Your task to perform on an android device: Show me productivity apps on the Play Store Image 0: 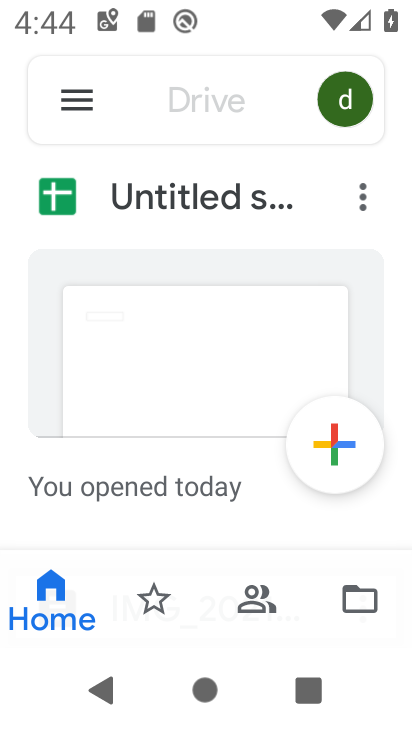
Step 0: press home button
Your task to perform on an android device: Show me productivity apps on the Play Store Image 1: 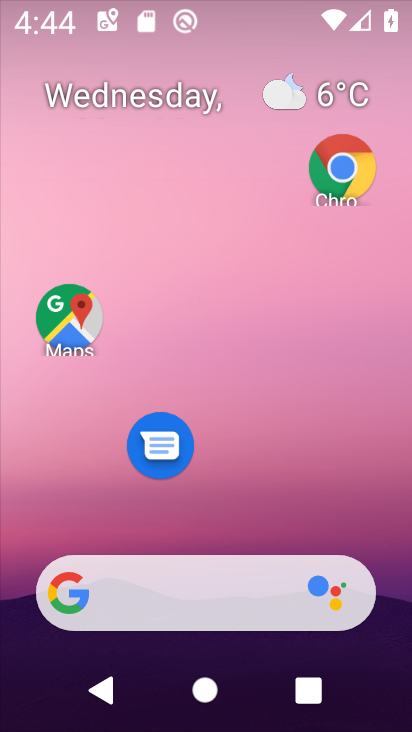
Step 1: drag from (172, 536) to (210, 6)
Your task to perform on an android device: Show me productivity apps on the Play Store Image 2: 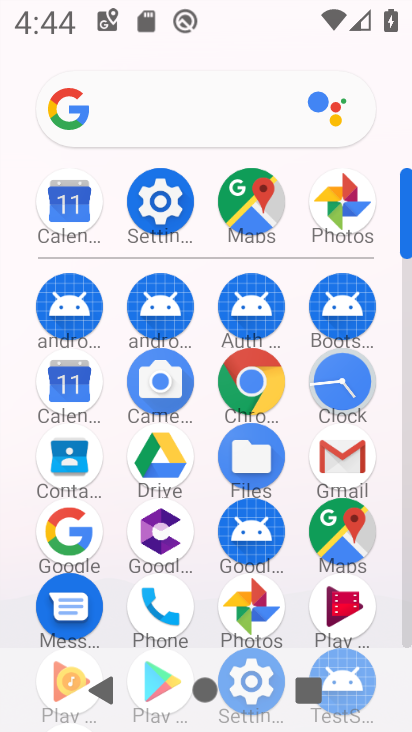
Step 2: drag from (120, 589) to (131, 165)
Your task to perform on an android device: Show me productivity apps on the Play Store Image 3: 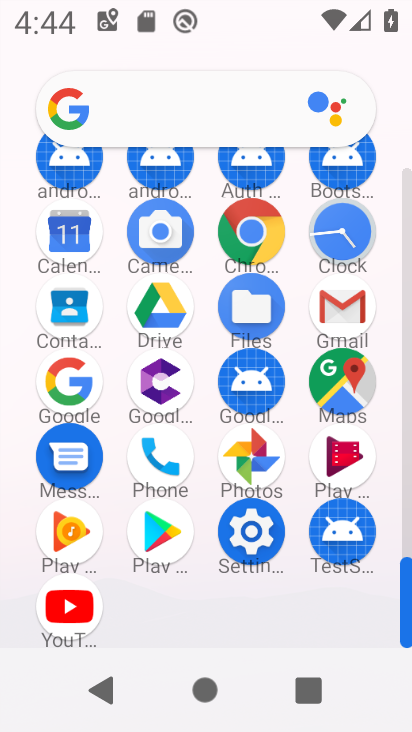
Step 3: click (159, 558)
Your task to perform on an android device: Show me productivity apps on the Play Store Image 4: 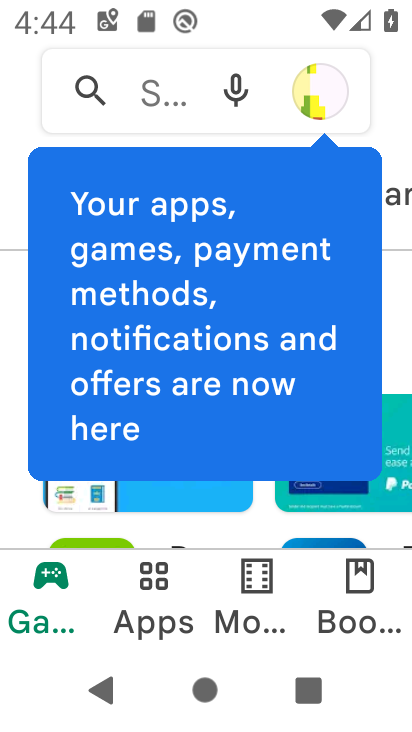
Step 4: click (137, 608)
Your task to perform on an android device: Show me productivity apps on the Play Store Image 5: 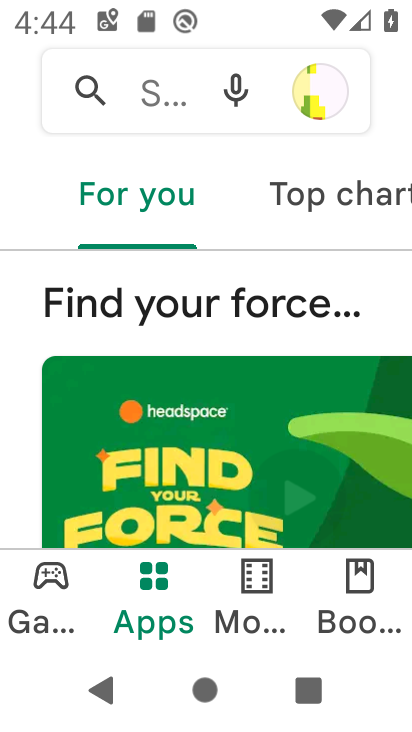
Step 5: drag from (349, 199) to (0, 206)
Your task to perform on an android device: Show me productivity apps on the Play Store Image 6: 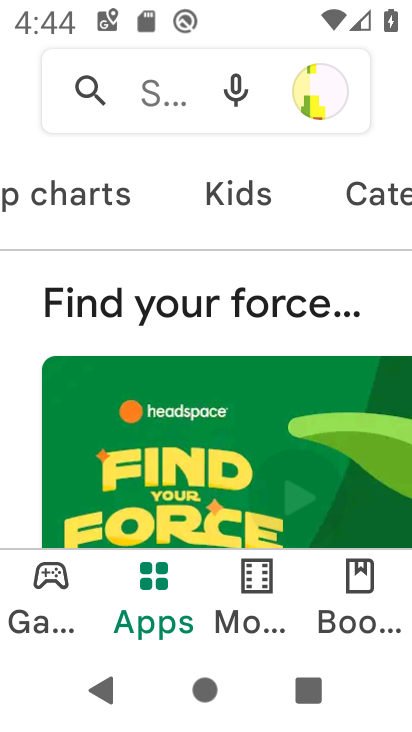
Step 6: drag from (392, 220) to (96, 199)
Your task to perform on an android device: Show me productivity apps on the Play Store Image 7: 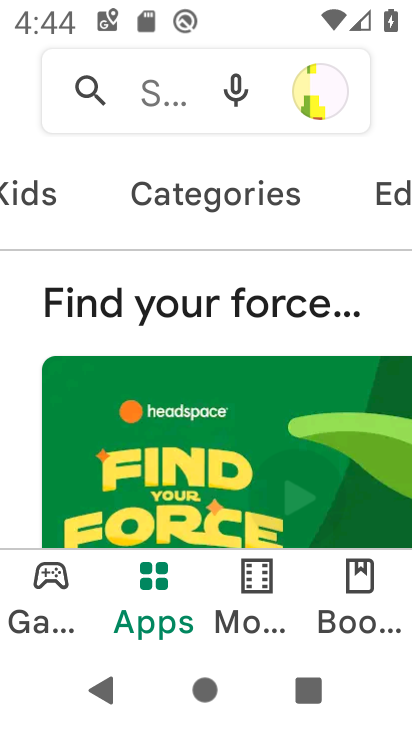
Step 7: click (240, 208)
Your task to perform on an android device: Show me productivity apps on the Play Store Image 8: 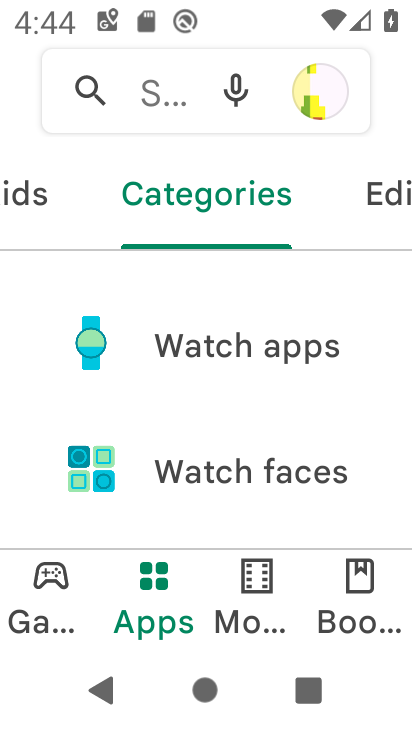
Step 8: drag from (231, 452) to (265, 15)
Your task to perform on an android device: Show me productivity apps on the Play Store Image 9: 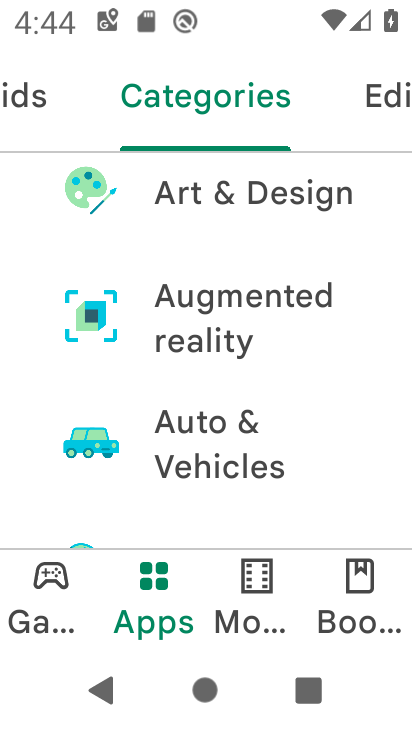
Step 9: drag from (184, 418) to (224, 0)
Your task to perform on an android device: Show me productivity apps on the Play Store Image 10: 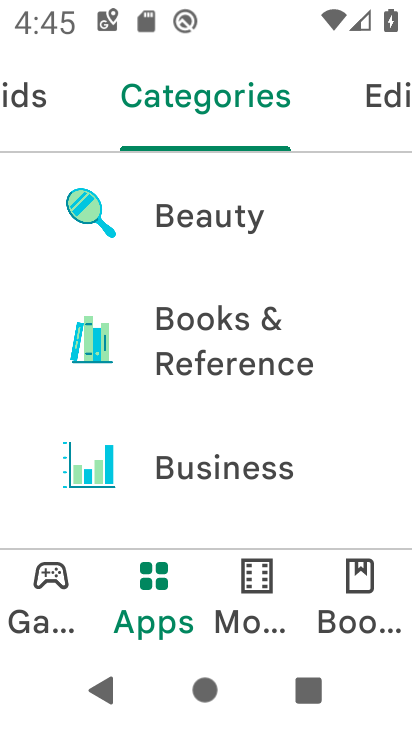
Step 10: drag from (207, 437) to (229, 4)
Your task to perform on an android device: Show me productivity apps on the Play Store Image 11: 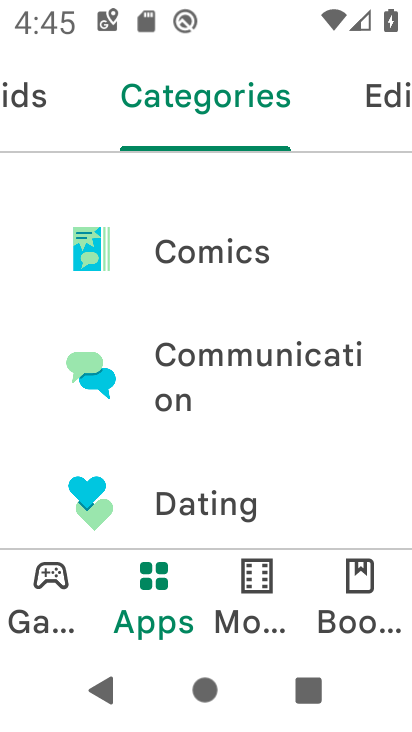
Step 11: drag from (214, 480) to (226, 0)
Your task to perform on an android device: Show me productivity apps on the Play Store Image 12: 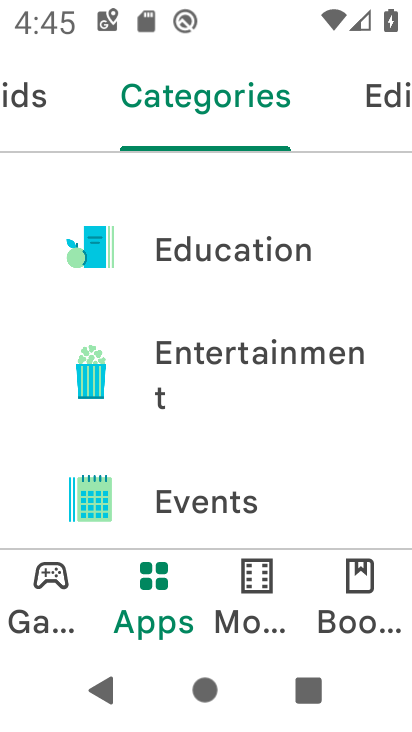
Step 12: drag from (160, 451) to (257, 1)
Your task to perform on an android device: Show me productivity apps on the Play Store Image 13: 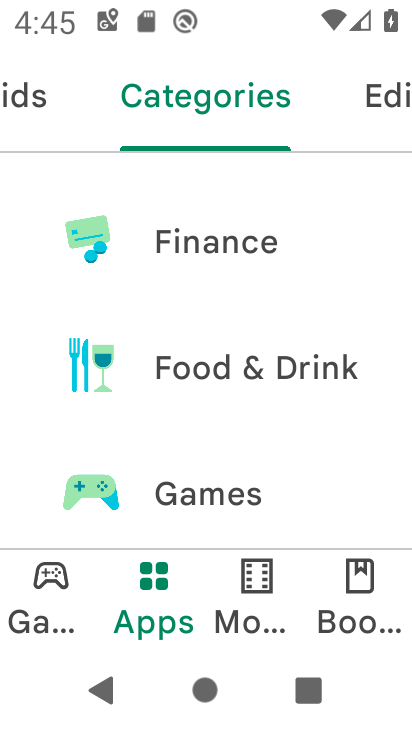
Step 13: drag from (247, 487) to (273, 6)
Your task to perform on an android device: Show me productivity apps on the Play Store Image 14: 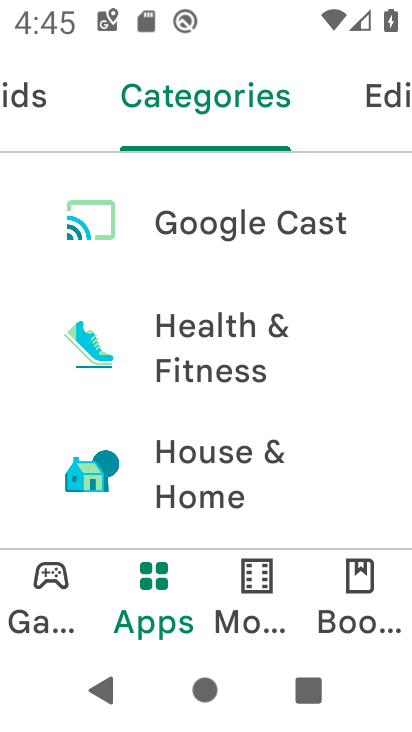
Step 14: drag from (223, 514) to (292, 7)
Your task to perform on an android device: Show me productivity apps on the Play Store Image 15: 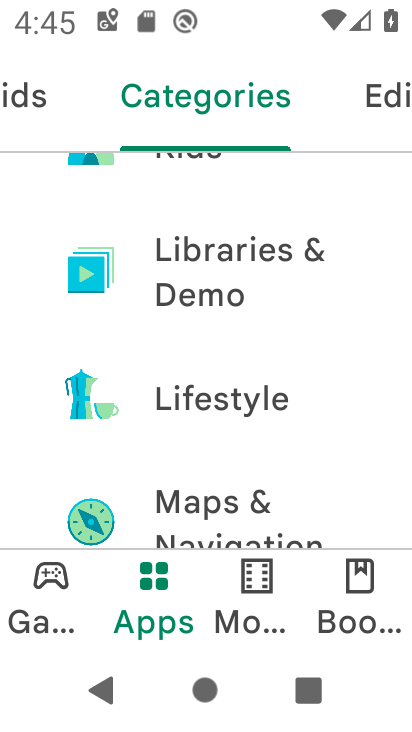
Step 15: drag from (261, 505) to (288, 3)
Your task to perform on an android device: Show me productivity apps on the Play Store Image 16: 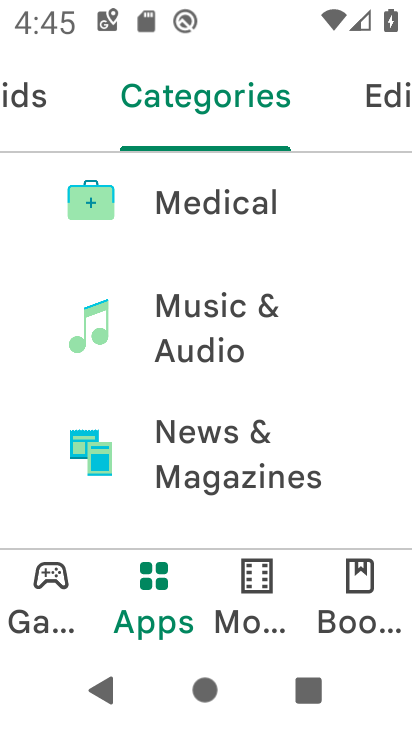
Step 16: drag from (218, 464) to (292, 23)
Your task to perform on an android device: Show me productivity apps on the Play Store Image 17: 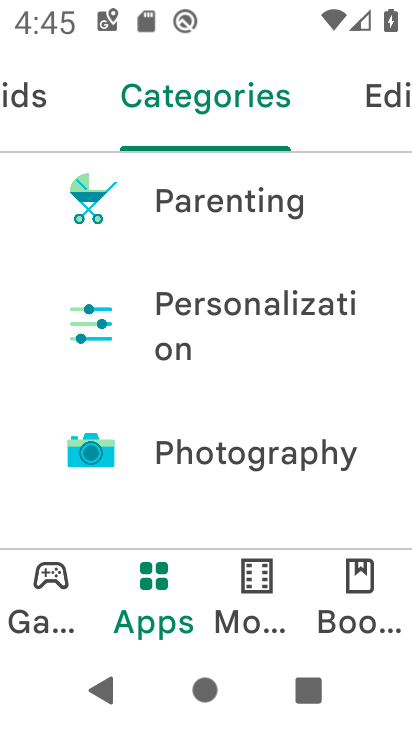
Step 17: drag from (237, 472) to (326, 68)
Your task to perform on an android device: Show me productivity apps on the Play Store Image 18: 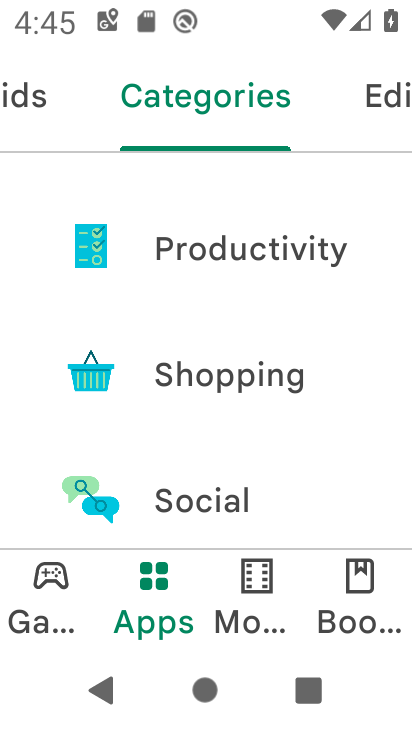
Step 18: click (275, 241)
Your task to perform on an android device: Show me productivity apps on the Play Store Image 19: 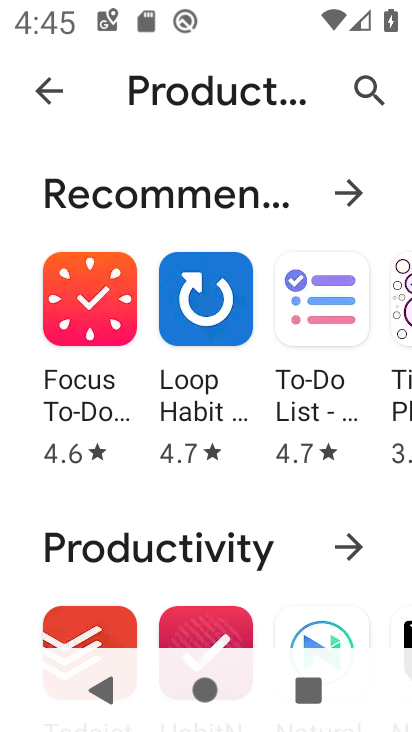
Step 19: task complete